Your task to perform on an android device: Play the last video I watched on Youtube Image 0: 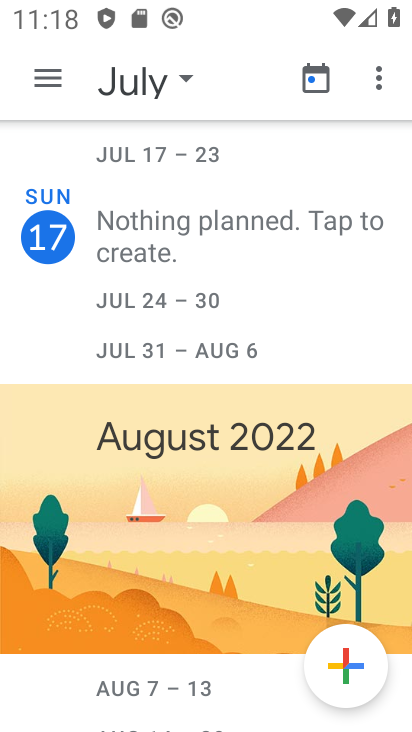
Step 0: press home button
Your task to perform on an android device: Play the last video I watched on Youtube Image 1: 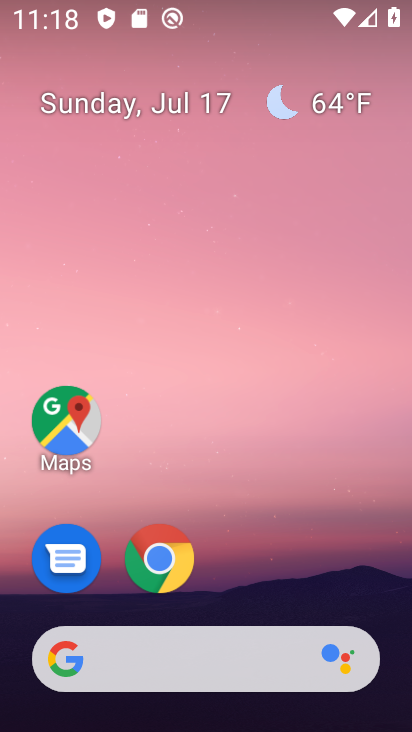
Step 1: drag from (360, 565) to (388, 71)
Your task to perform on an android device: Play the last video I watched on Youtube Image 2: 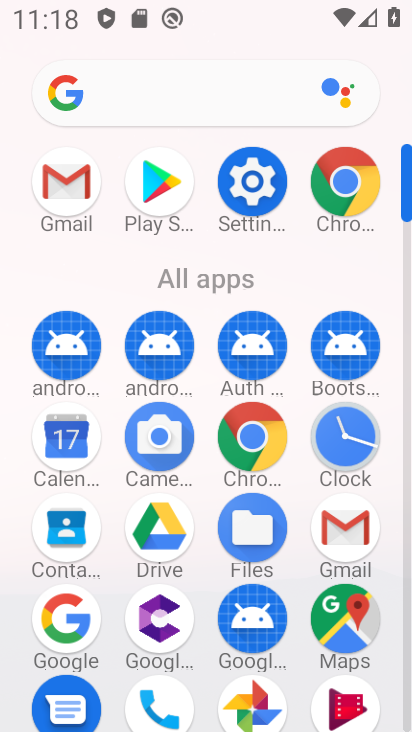
Step 2: drag from (384, 507) to (401, 193)
Your task to perform on an android device: Play the last video I watched on Youtube Image 3: 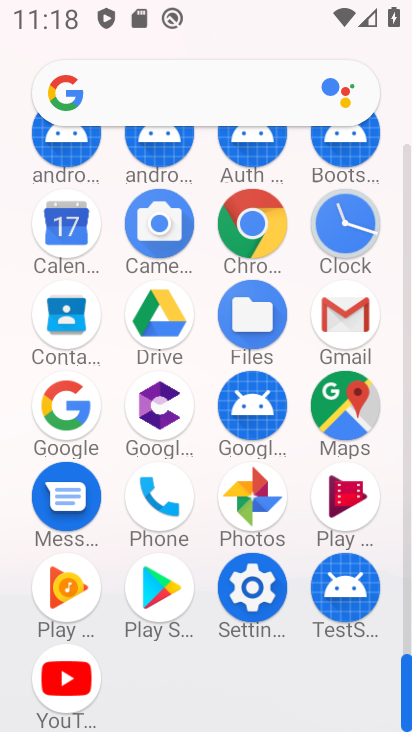
Step 3: click (69, 676)
Your task to perform on an android device: Play the last video I watched on Youtube Image 4: 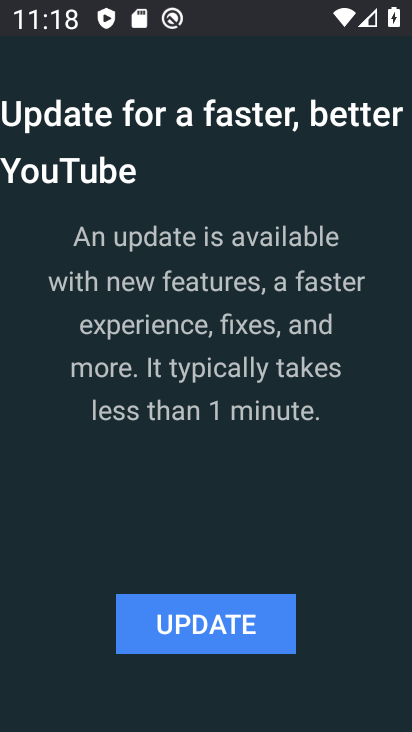
Step 4: click (277, 612)
Your task to perform on an android device: Play the last video I watched on Youtube Image 5: 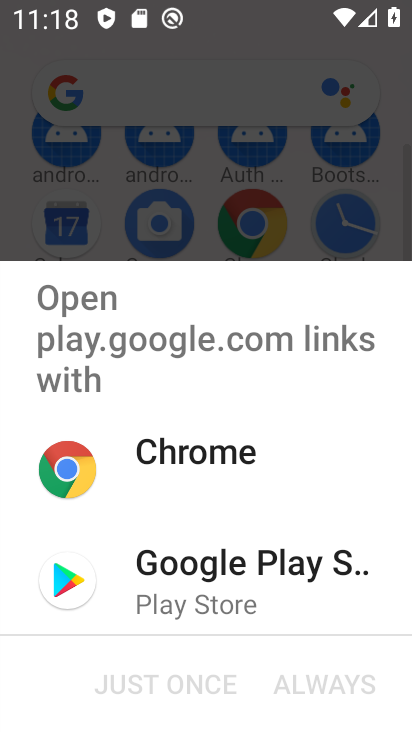
Step 5: click (190, 594)
Your task to perform on an android device: Play the last video I watched on Youtube Image 6: 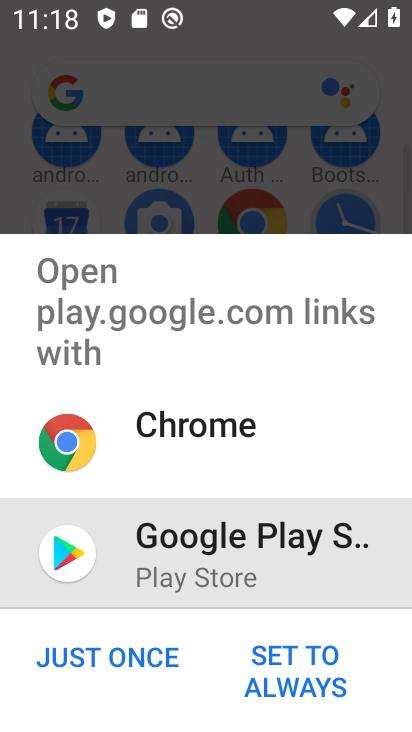
Step 6: click (151, 664)
Your task to perform on an android device: Play the last video I watched on Youtube Image 7: 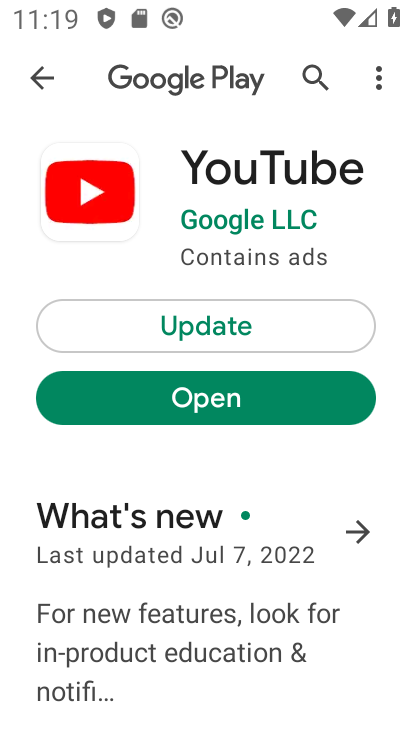
Step 7: click (236, 326)
Your task to perform on an android device: Play the last video I watched on Youtube Image 8: 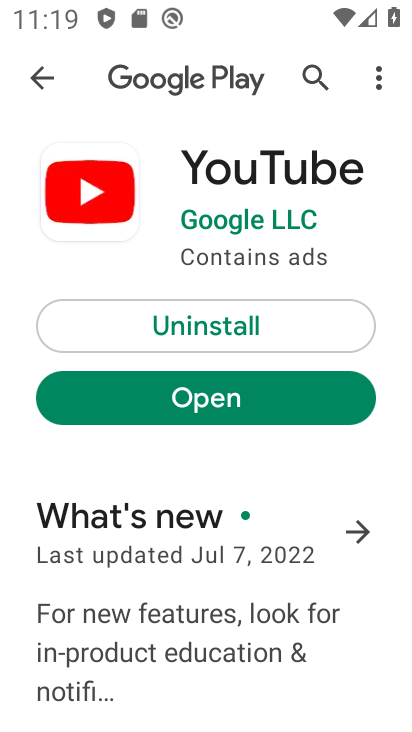
Step 8: click (237, 409)
Your task to perform on an android device: Play the last video I watched on Youtube Image 9: 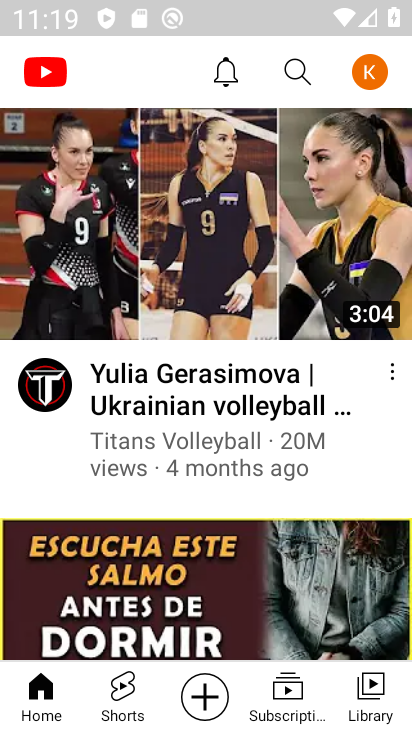
Step 9: click (382, 688)
Your task to perform on an android device: Play the last video I watched on Youtube Image 10: 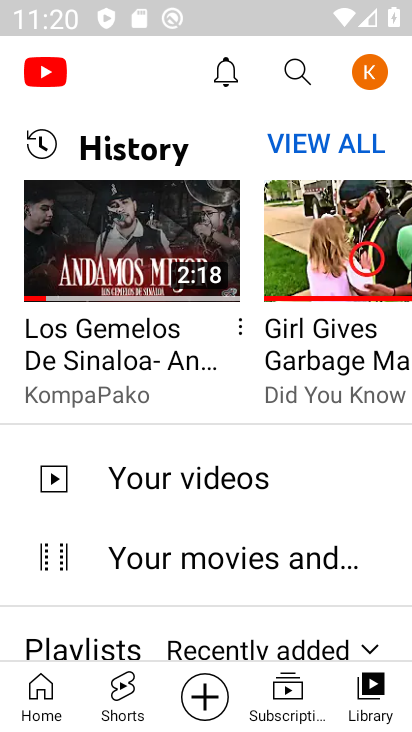
Step 10: click (225, 231)
Your task to perform on an android device: Play the last video I watched on Youtube Image 11: 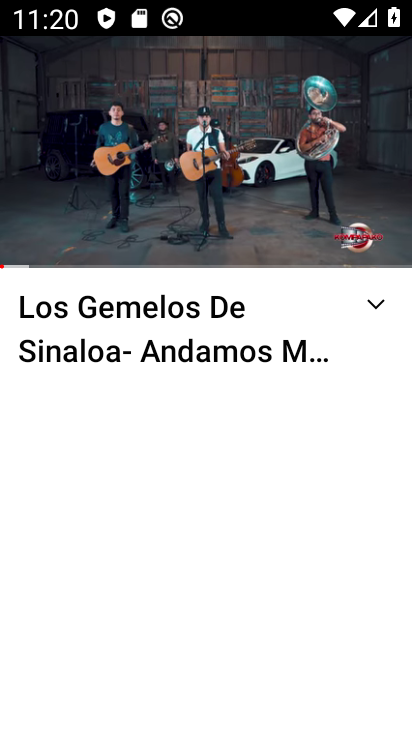
Step 11: task complete